Your task to perform on an android device: Open Maps and search for coffee Image 0: 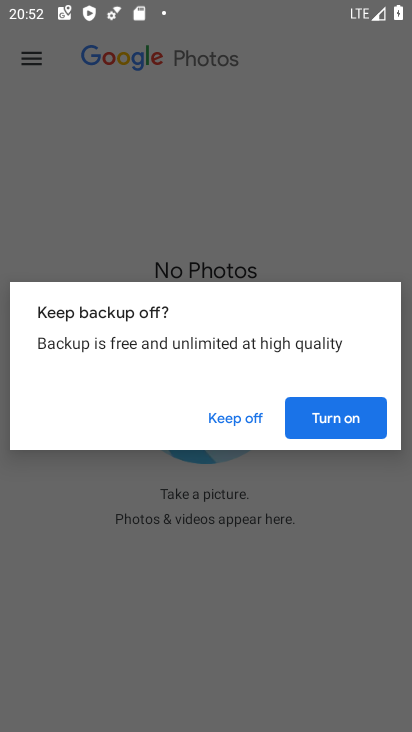
Step 0: press back button
Your task to perform on an android device: Open Maps and search for coffee Image 1: 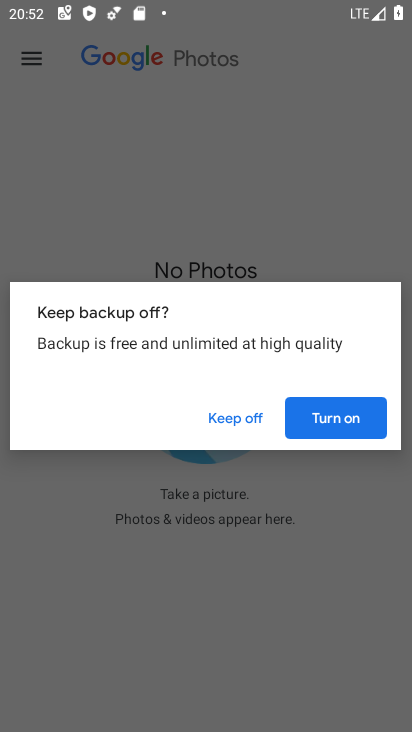
Step 1: press home button
Your task to perform on an android device: Open Maps and search for coffee Image 2: 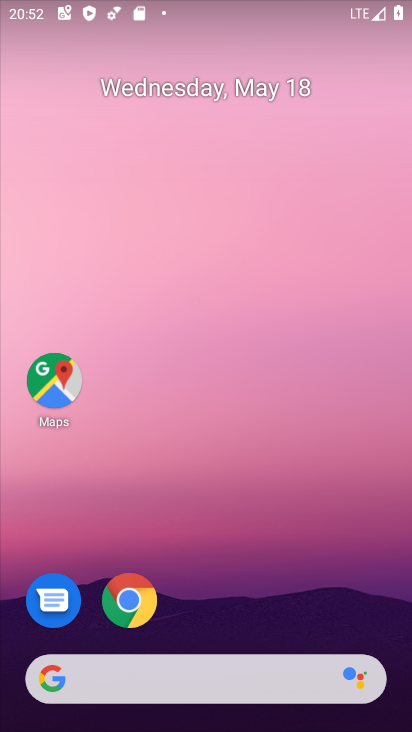
Step 2: click (67, 369)
Your task to perform on an android device: Open Maps and search for coffee Image 3: 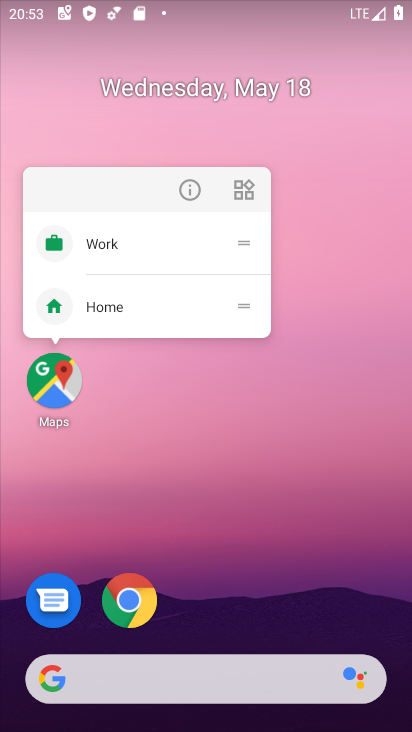
Step 3: click (58, 374)
Your task to perform on an android device: Open Maps and search for coffee Image 4: 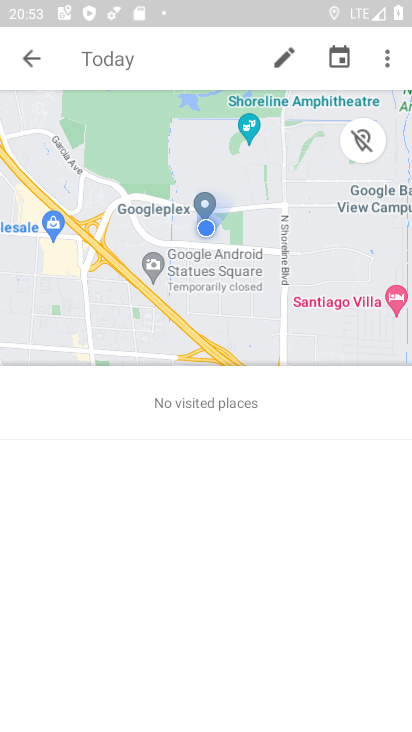
Step 4: click (19, 64)
Your task to perform on an android device: Open Maps and search for coffee Image 5: 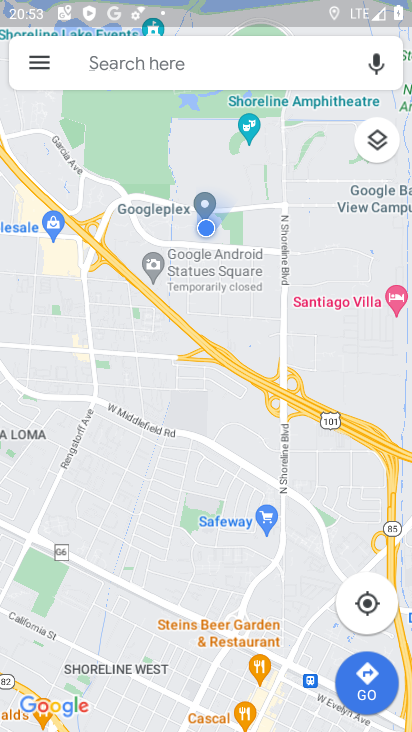
Step 5: click (143, 63)
Your task to perform on an android device: Open Maps and search for coffee Image 6: 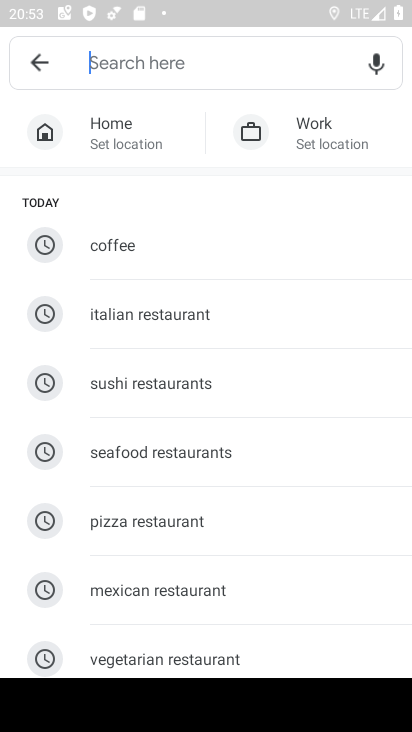
Step 6: click (152, 252)
Your task to perform on an android device: Open Maps and search for coffee Image 7: 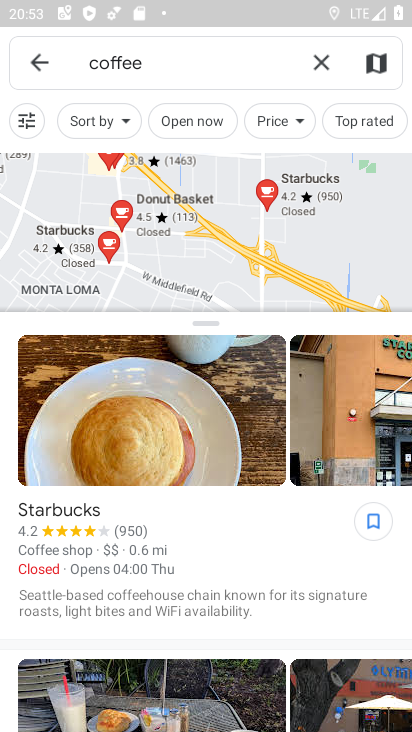
Step 7: task complete